Your task to perform on an android device: Open Maps and search for coffee Image 0: 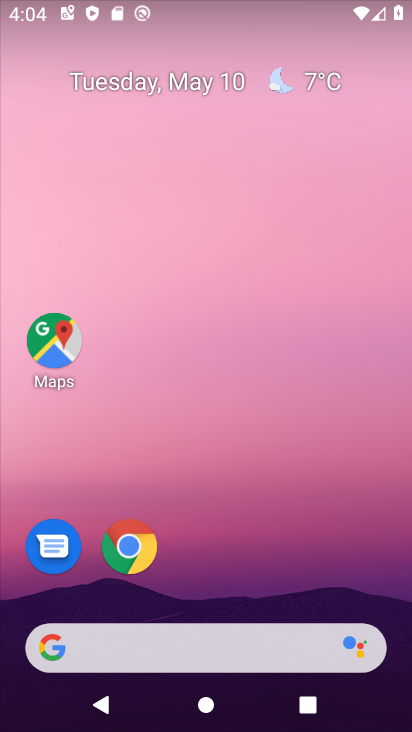
Step 0: click (155, 76)
Your task to perform on an android device: Open Maps and search for coffee Image 1: 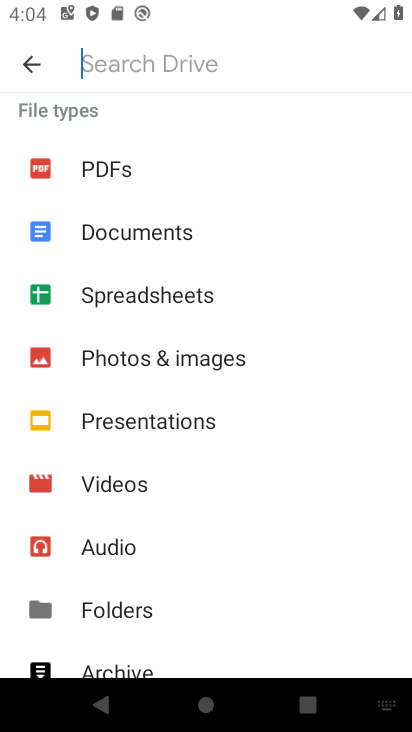
Step 1: press back button
Your task to perform on an android device: Open Maps and search for coffee Image 2: 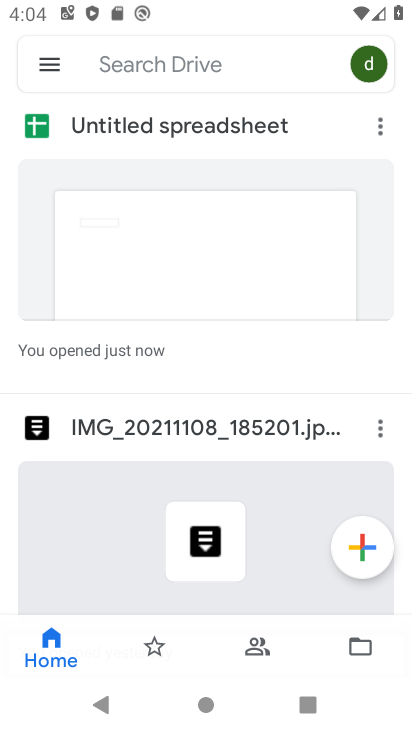
Step 2: press back button
Your task to perform on an android device: Open Maps and search for coffee Image 3: 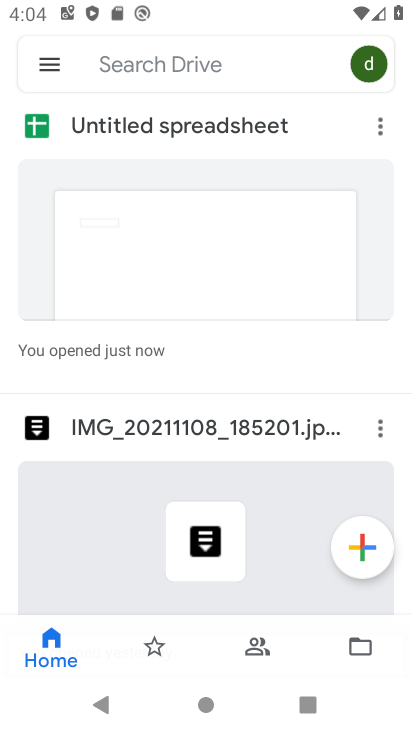
Step 3: press back button
Your task to perform on an android device: Open Maps and search for coffee Image 4: 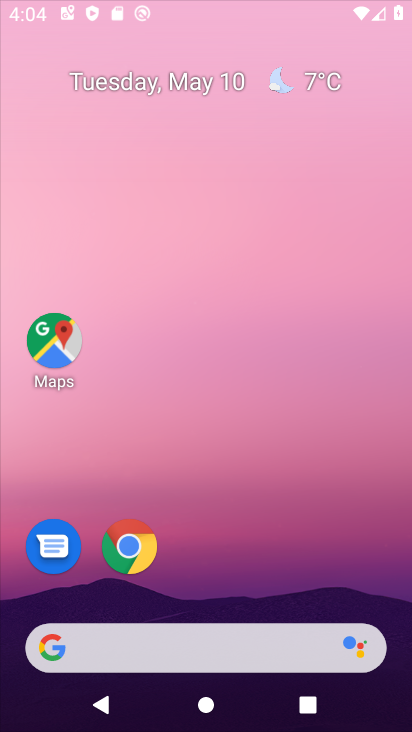
Step 4: press back button
Your task to perform on an android device: Open Maps and search for coffee Image 5: 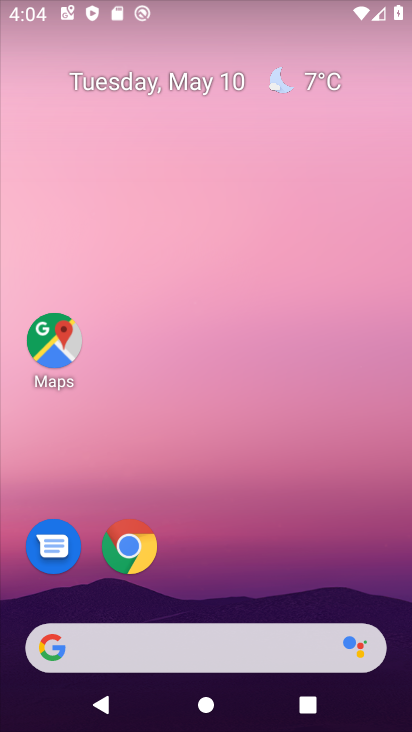
Step 5: press back button
Your task to perform on an android device: Open Maps and search for coffee Image 6: 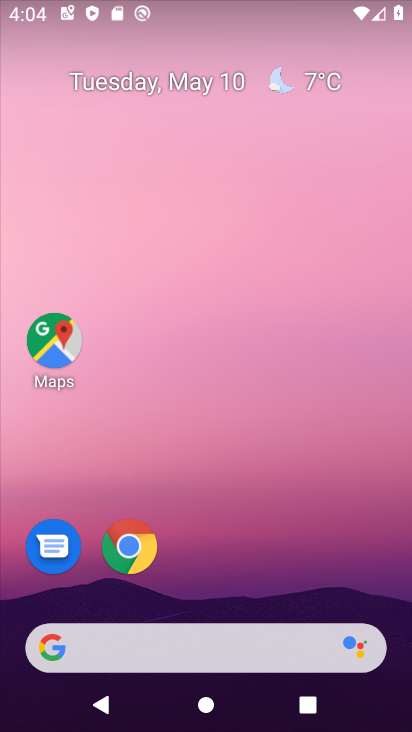
Step 6: click (38, 339)
Your task to perform on an android device: Open Maps and search for coffee Image 7: 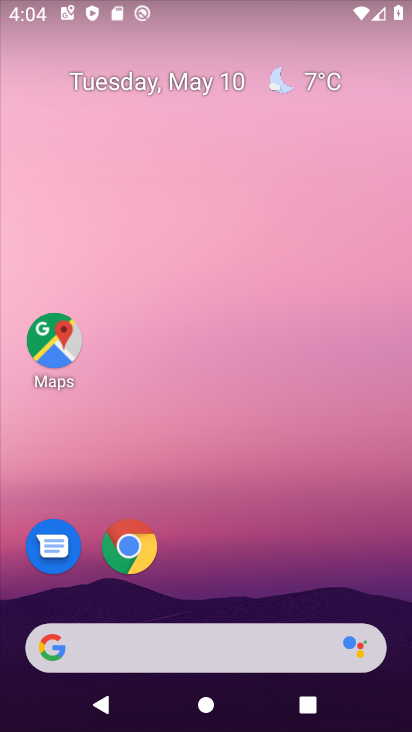
Step 7: click (37, 337)
Your task to perform on an android device: Open Maps and search for coffee Image 8: 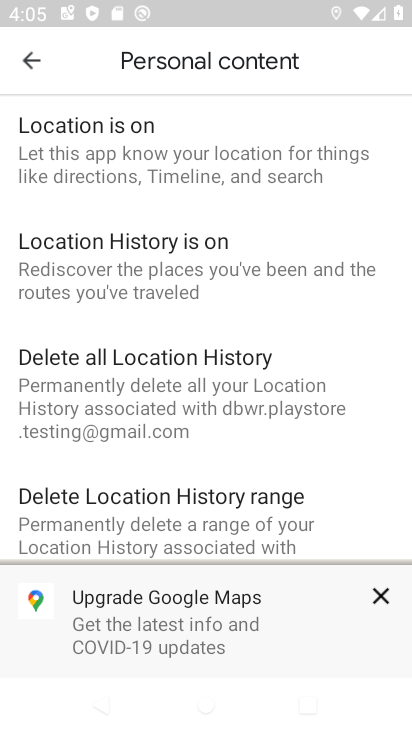
Step 8: click (30, 74)
Your task to perform on an android device: Open Maps and search for coffee Image 9: 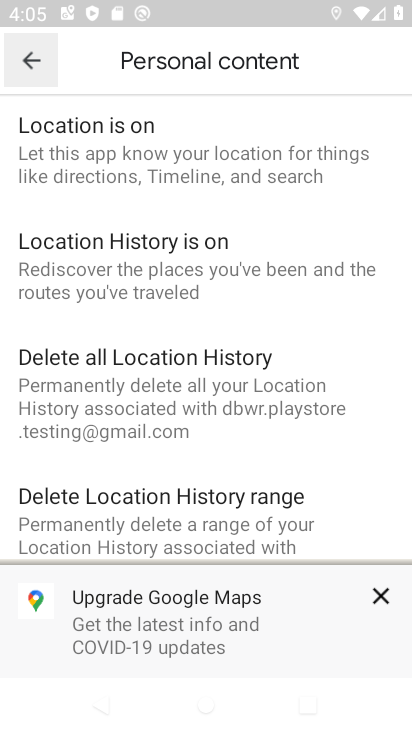
Step 9: click (28, 69)
Your task to perform on an android device: Open Maps and search for coffee Image 10: 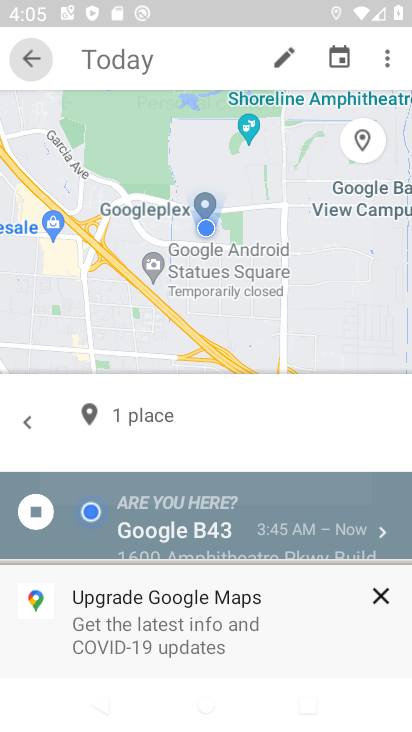
Step 10: click (28, 69)
Your task to perform on an android device: Open Maps and search for coffee Image 11: 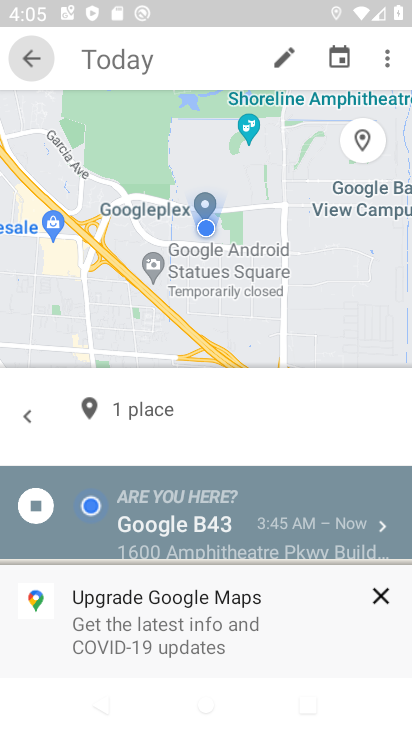
Step 11: click (28, 69)
Your task to perform on an android device: Open Maps and search for coffee Image 12: 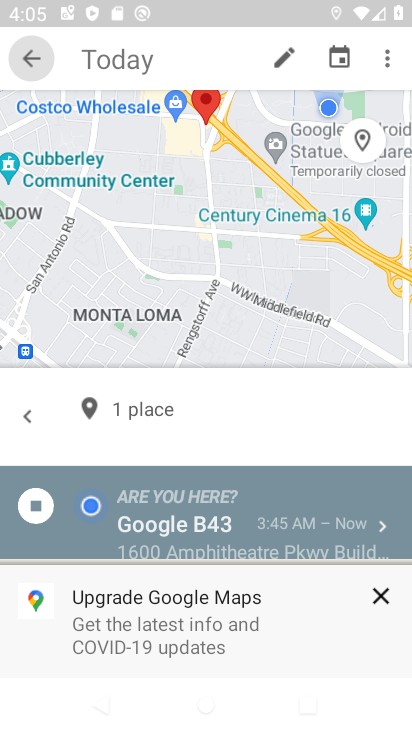
Step 12: click (86, 55)
Your task to perform on an android device: Open Maps and search for coffee Image 13: 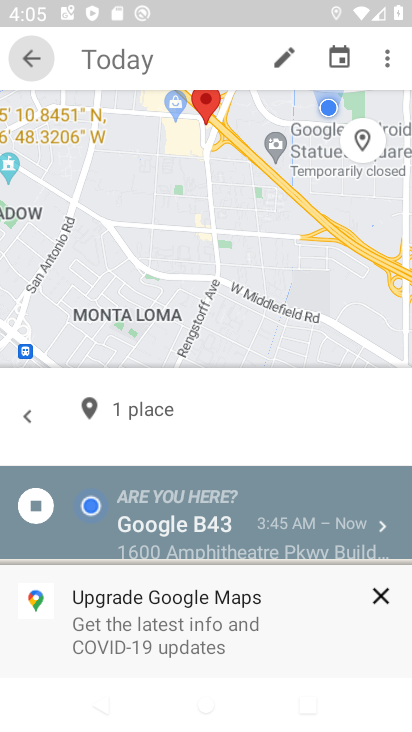
Step 13: click (85, 57)
Your task to perform on an android device: Open Maps and search for coffee Image 14: 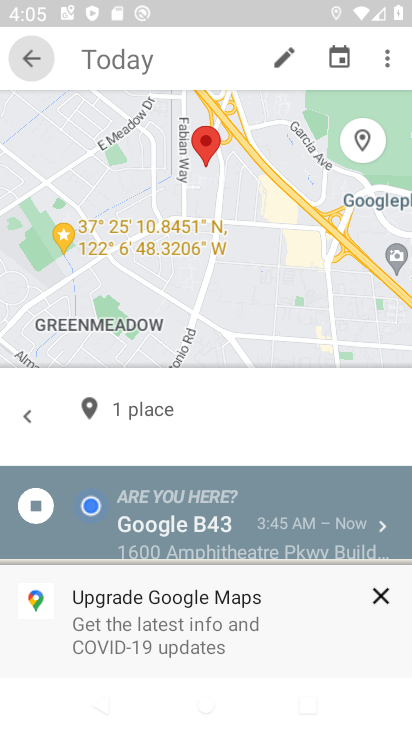
Step 14: click (74, 51)
Your task to perform on an android device: Open Maps and search for coffee Image 15: 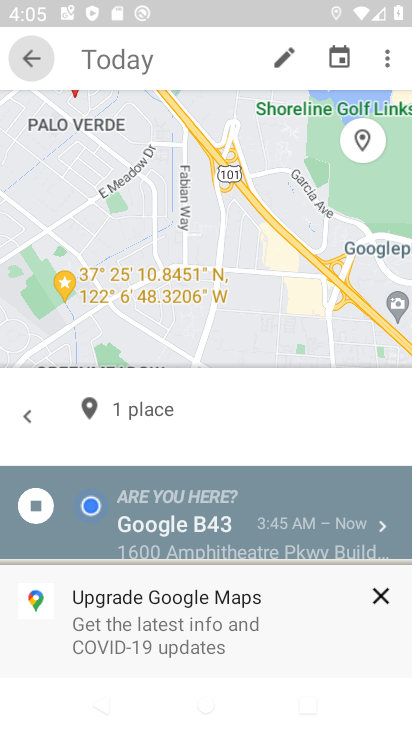
Step 15: click (81, 52)
Your task to perform on an android device: Open Maps and search for coffee Image 16: 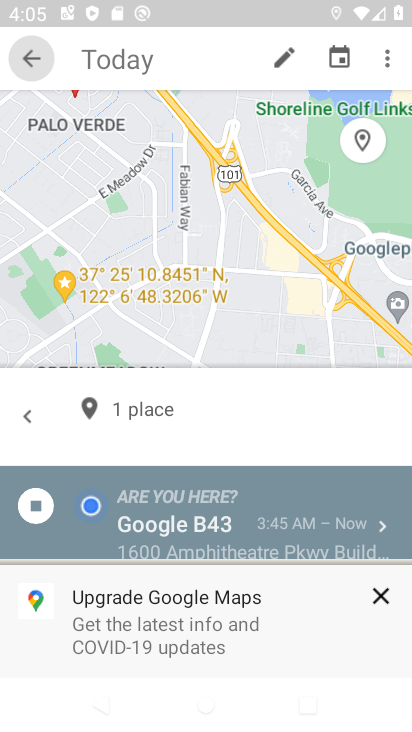
Step 16: click (80, 52)
Your task to perform on an android device: Open Maps and search for coffee Image 17: 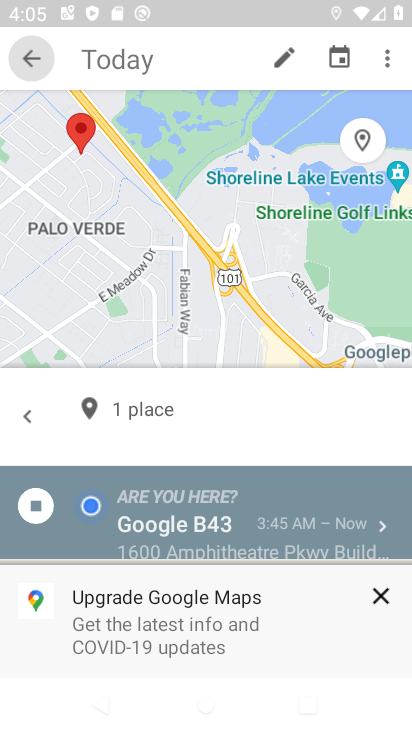
Step 17: click (79, 52)
Your task to perform on an android device: Open Maps and search for coffee Image 18: 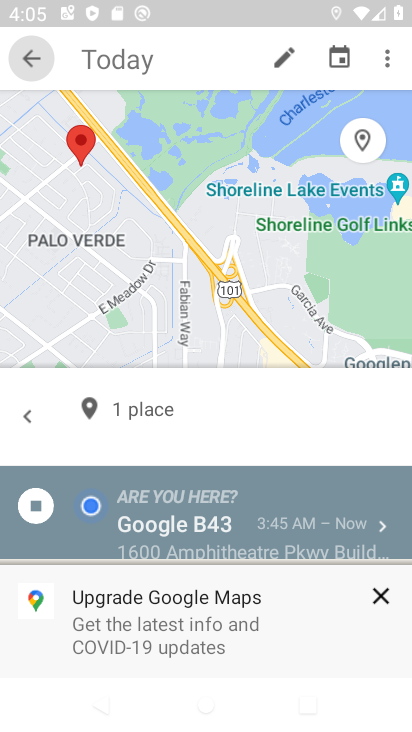
Step 18: click (76, 52)
Your task to perform on an android device: Open Maps and search for coffee Image 19: 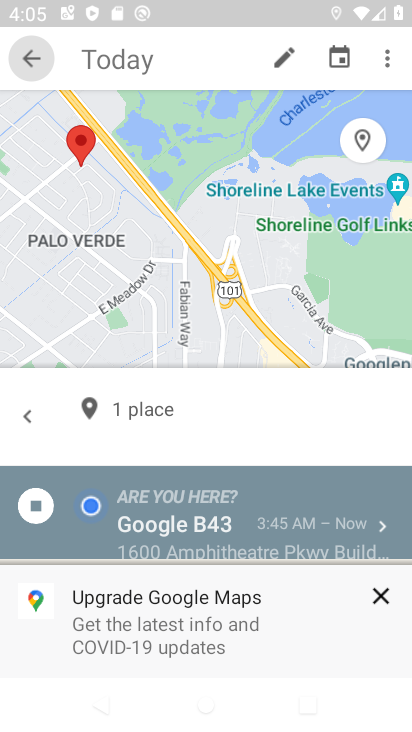
Step 19: click (75, 62)
Your task to perform on an android device: Open Maps and search for coffee Image 20: 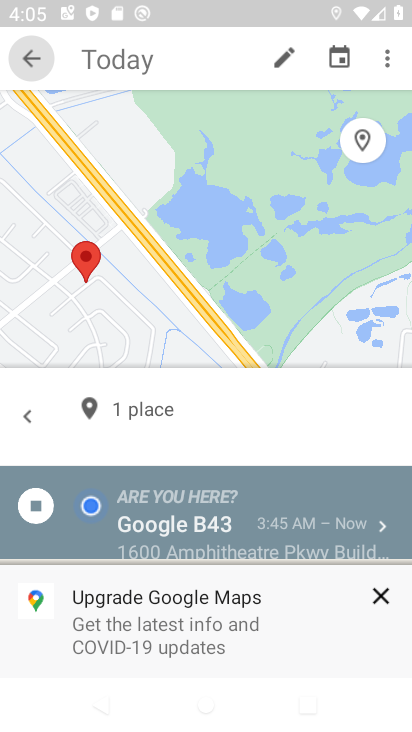
Step 20: click (81, 49)
Your task to perform on an android device: Open Maps and search for coffee Image 21: 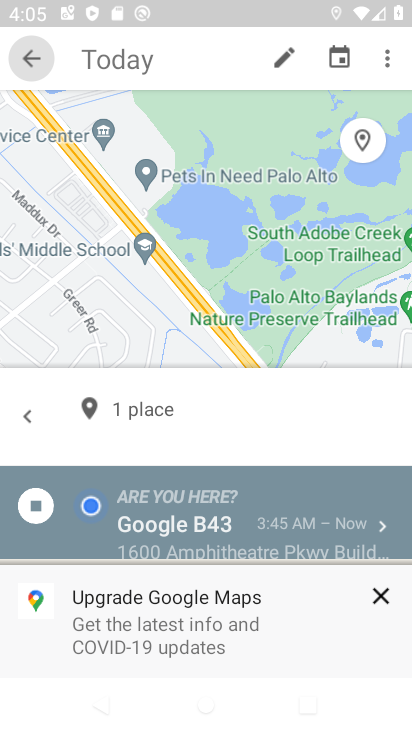
Step 21: click (79, 50)
Your task to perform on an android device: Open Maps and search for coffee Image 22: 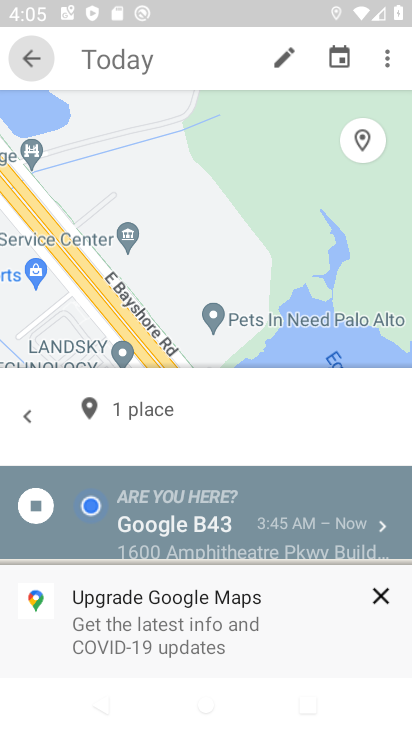
Step 22: click (29, 55)
Your task to perform on an android device: Open Maps and search for coffee Image 23: 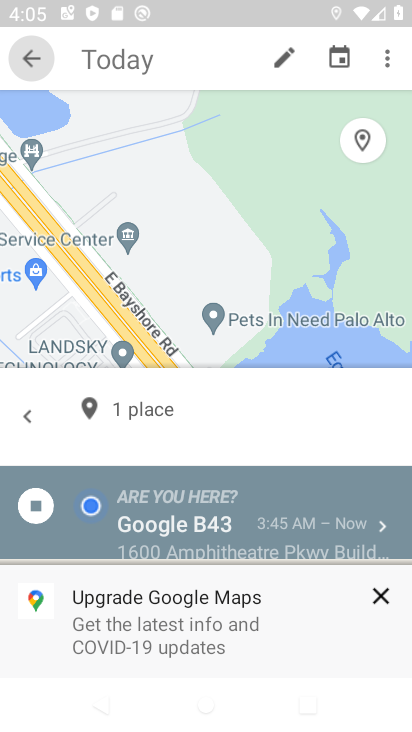
Step 23: click (159, 47)
Your task to perform on an android device: Open Maps and search for coffee Image 24: 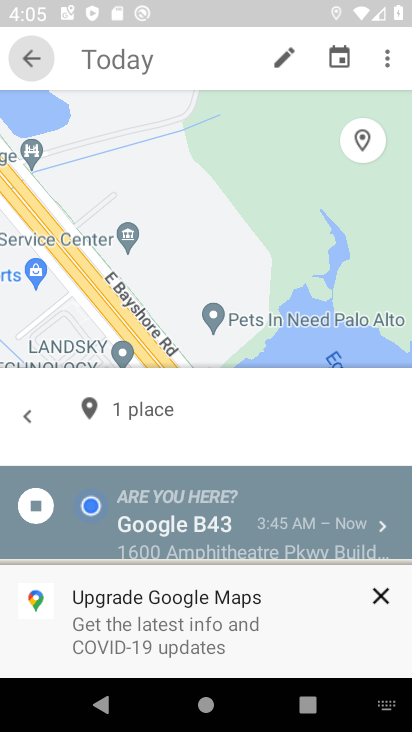
Step 24: click (156, 61)
Your task to perform on an android device: Open Maps and search for coffee Image 25: 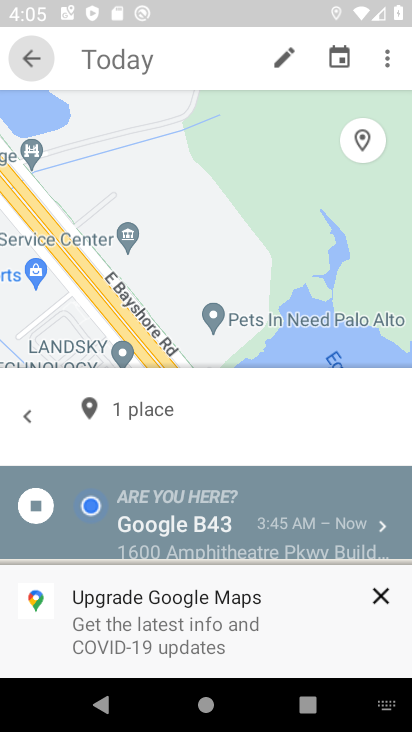
Step 25: click (152, 65)
Your task to perform on an android device: Open Maps and search for coffee Image 26: 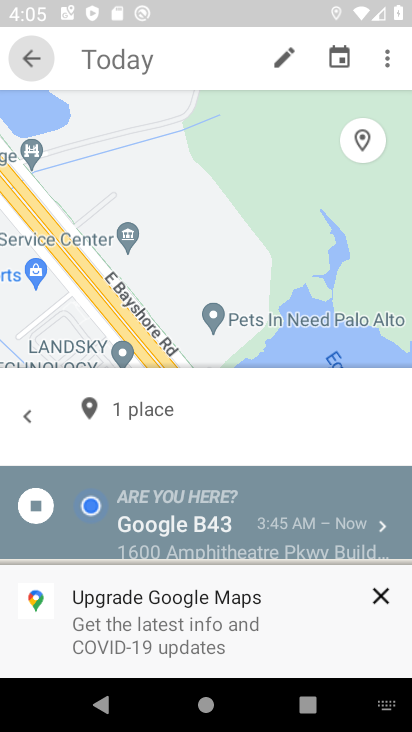
Step 26: click (153, 64)
Your task to perform on an android device: Open Maps and search for coffee Image 27: 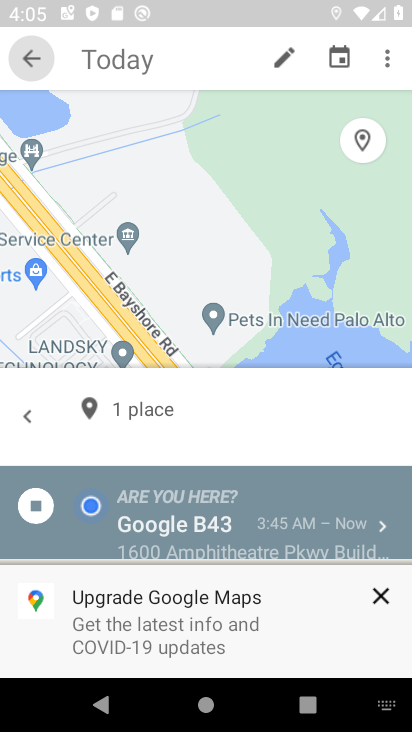
Step 27: click (151, 69)
Your task to perform on an android device: Open Maps and search for coffee Image 28: 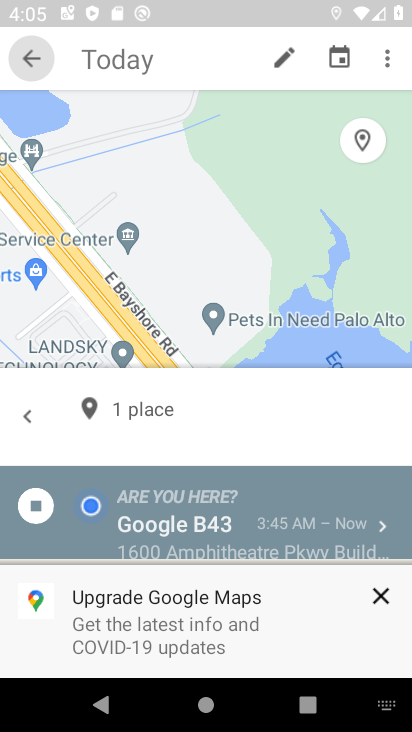
Step 28: click (150, 71)
Your task to perform on an android device: Open Maps and search for coffee Image 29: 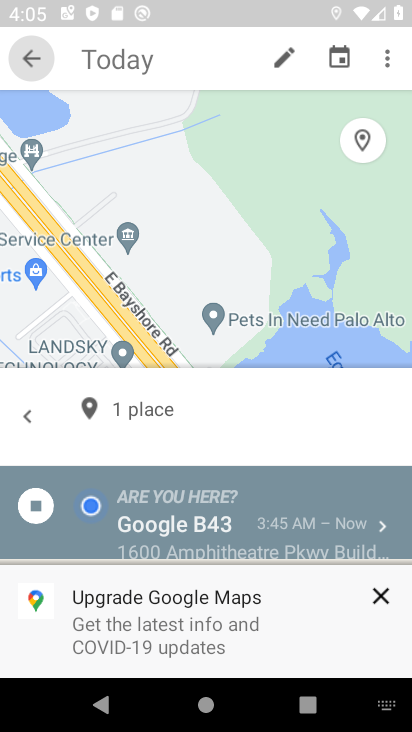
Step 29: click (143, 72)
Your task to perform on an android device: Open Maps and search for coffee Image 30: 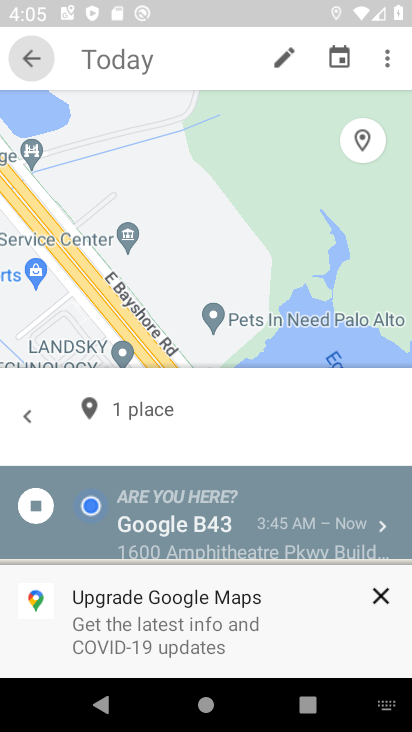
Step 30: click (140, 74)
Your task to perform on an android device: Open Maps and search for coffee Image 31: 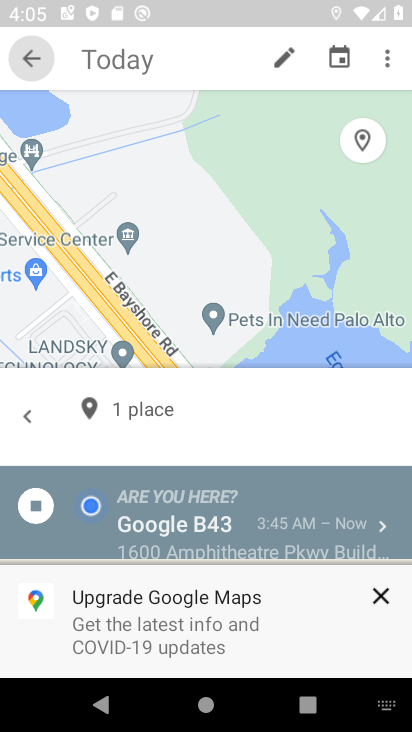
Step 31: click (138, 75)
Your task to perform on an android device: Open Maps and search for coffee Image 32: 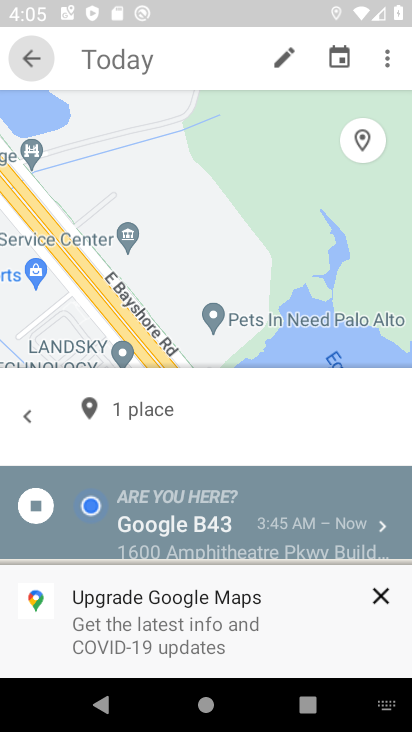
Step 32: click (136, 78)
Your task to perform on an android device: Open Maps and search for coffee Image 33: 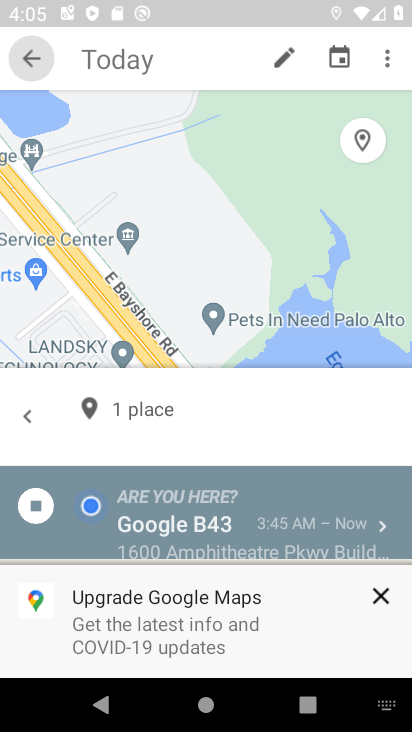
Step 33: click (135, 78)
Your task to perform on an android device: Open Maps and search for coffee Image 34: 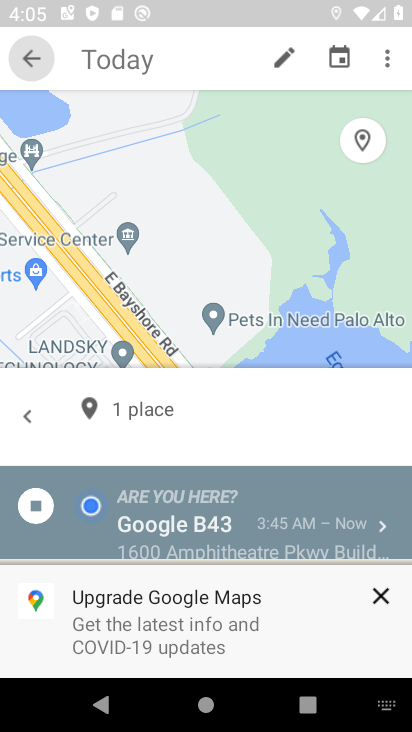
Step 34: click (100, 54)
Your task to perform on an android device: Open Maps and search for coffee Image 35: 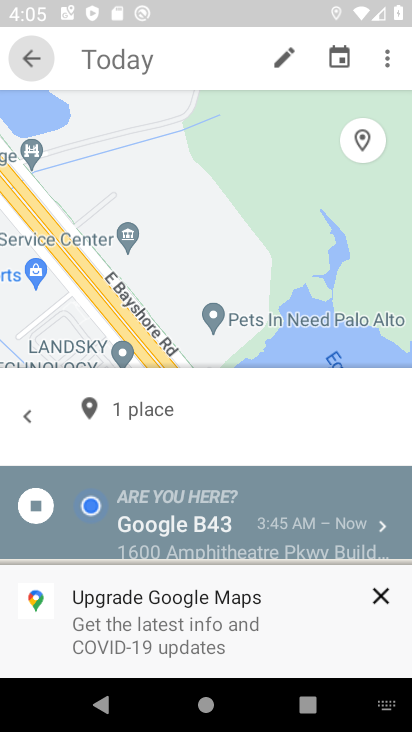
Step 35: click (77, 57)
Your task to perform on an android device: Open Maps and search for coffee Image 36: 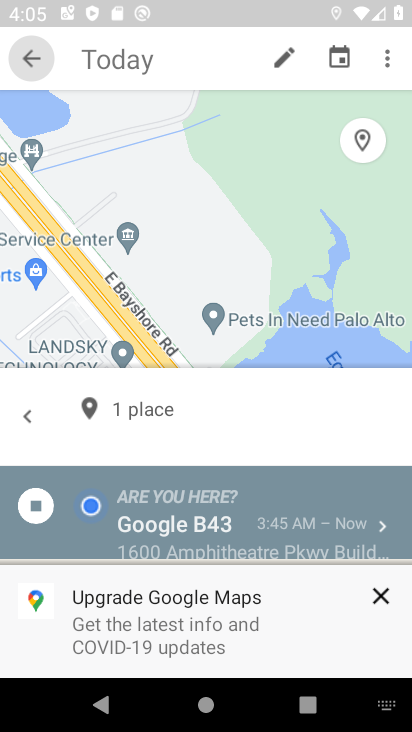
Step 36: type "coffee"
Your task to perform on an android device: Open Maps and search for coffee Image 37: 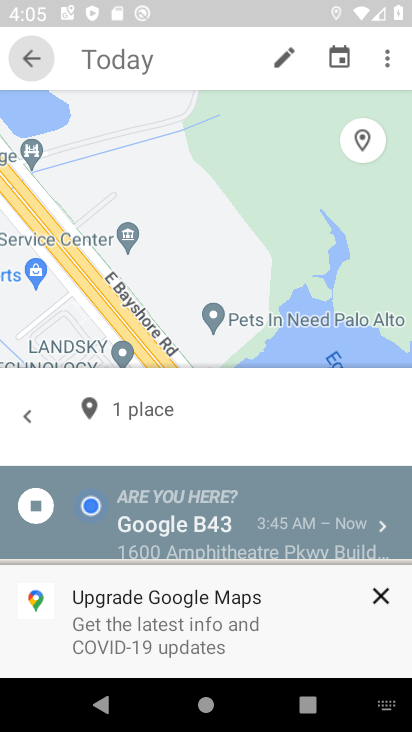
Step 37: click (99, 59)
Your task to perform on an android device: Open Maps and search for coffee Image 38: 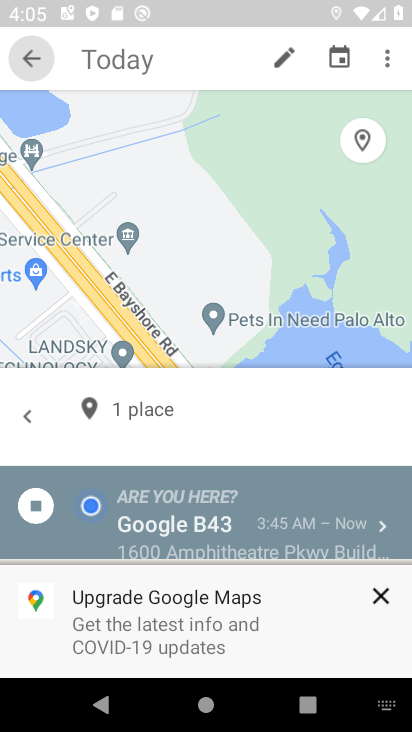
Step 38: click (99, 59)
Your task to perform on an android device: Open Maps and search for coffee Image 39: 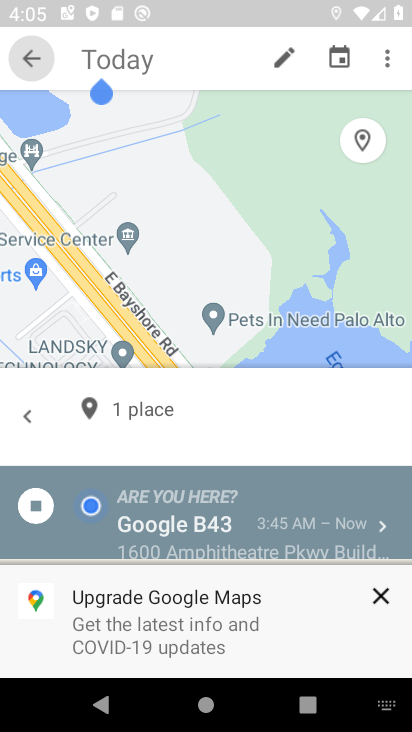
Step 39: click (99, 59)
Your task to perform on an android device: Open Maps and search for coffee Image 40: 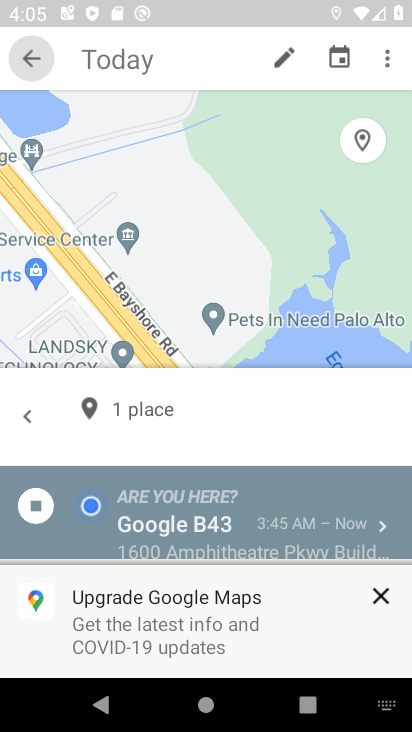
Step 40: click (99, 59)
Your task to perform on an android device: Open Maps and search for coffee Image 41: 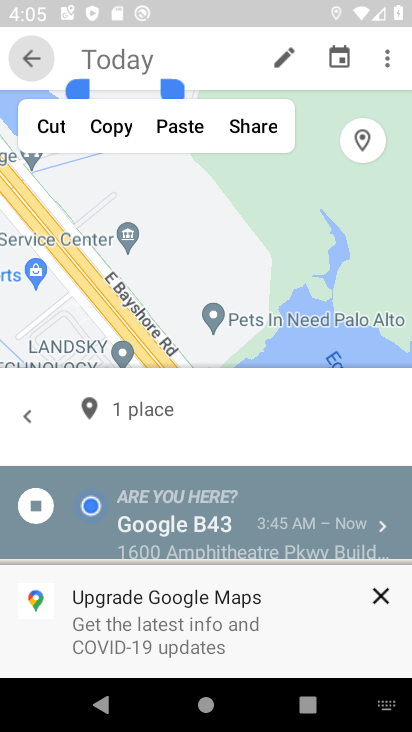
Step 41: click (90, 70)
Your task to perform on an android device: Open Maps and search for coffee Image 42: 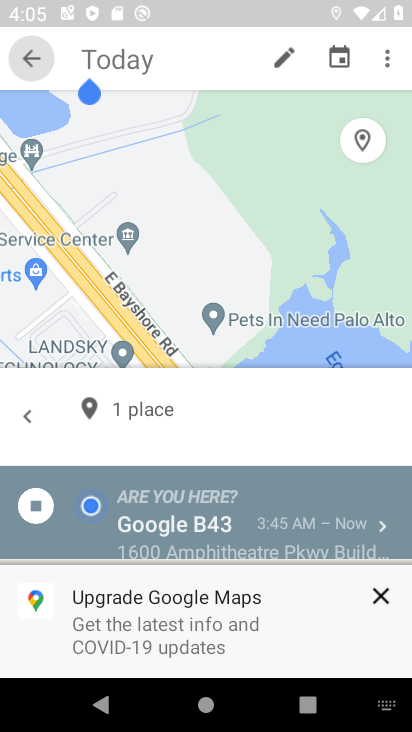
Step 42: click (27, 54)
Your task to perform on an android device: Open Maps and search for coffee Image 43: 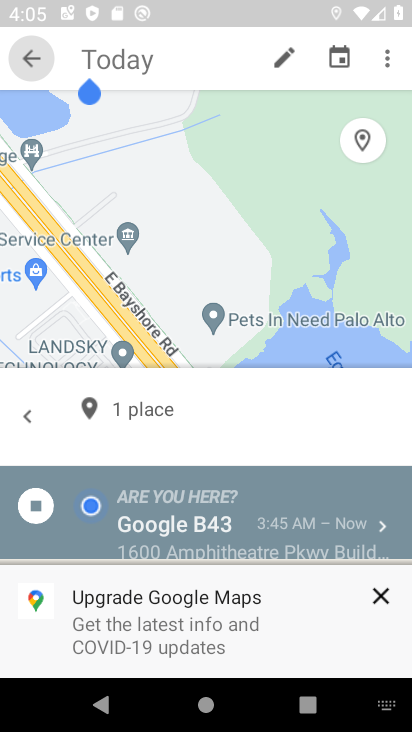
Step 43: click (27, 54)
Your task to perform on an android device: Open Maps and search for coffee Image 44: 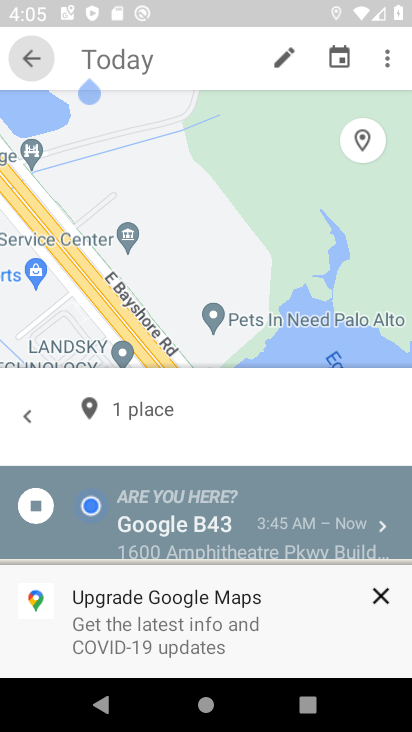
Step 44: click (27, 54)
Your task to perform on an android device: Open Maps and search for coffee Image 45: 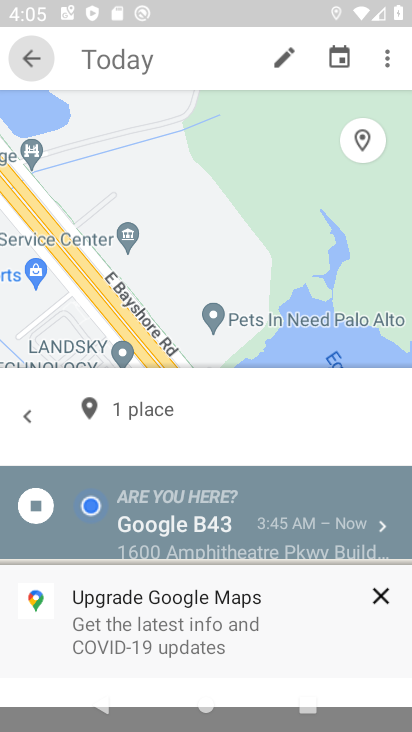
Step 45: click (27, 54)
Your task to perform on an android device: Open Maps and search for coffee Image 46: 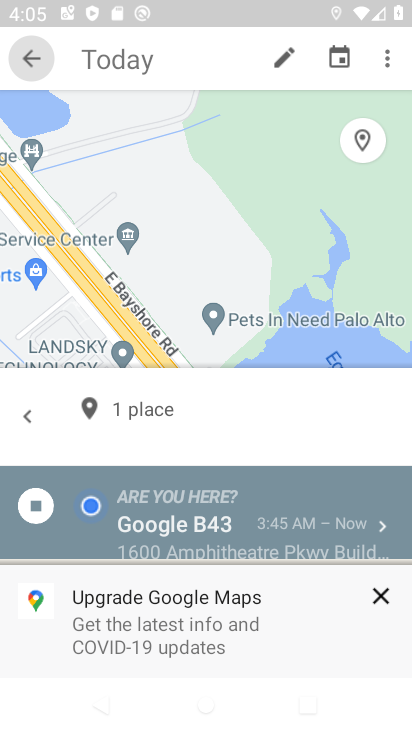
Step 46: click (27, 54)
Your task to perform on an android device: Open Maps and search for coffee Image 47: 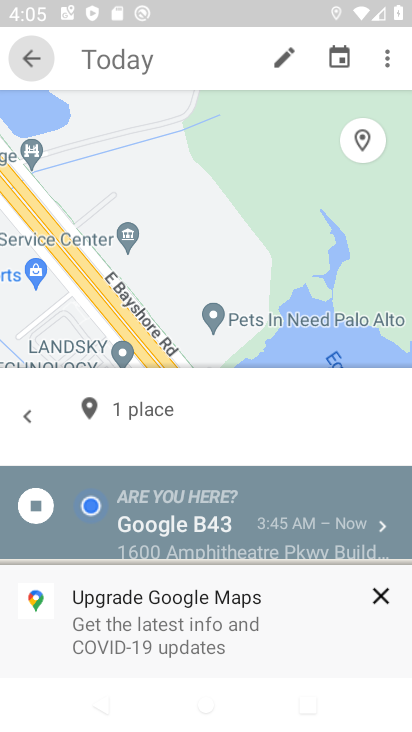
Step 47: click (27, 54)
Your task to perform on an android device: Open Maps and search for coffee Image 48: 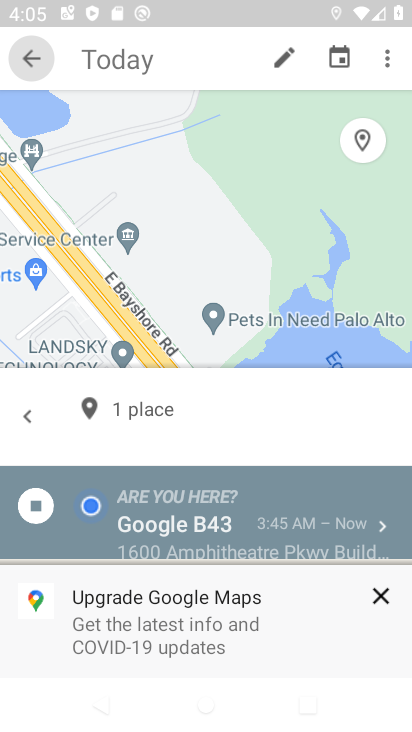
Step 48: click (27, 54)
Your task to perform on an android device: Open Maps and search for coffee Image 49: 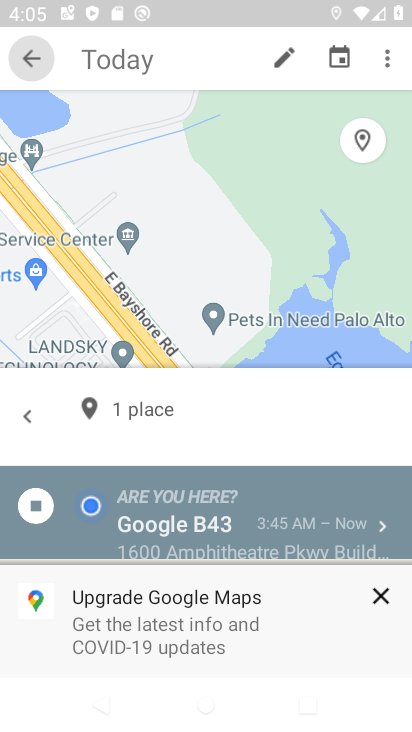
Step 49: click (27, 54)
Your task to perform on an android device: Open Maps and search for coffee Image 50: 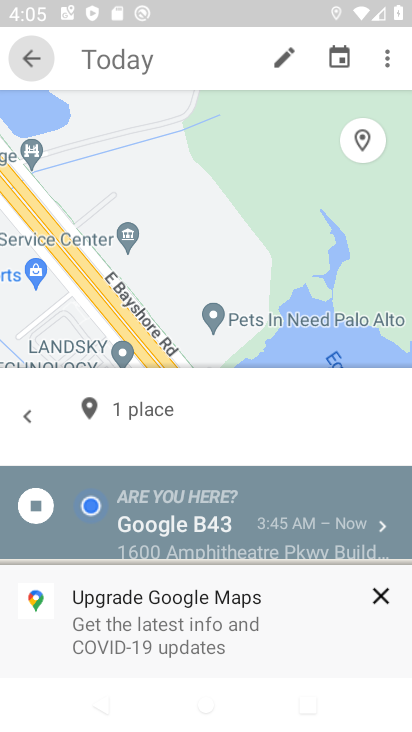
Step 50: click (27, 54)
Your task to perform on an android device: Open Maps and search for coffee Image 51: 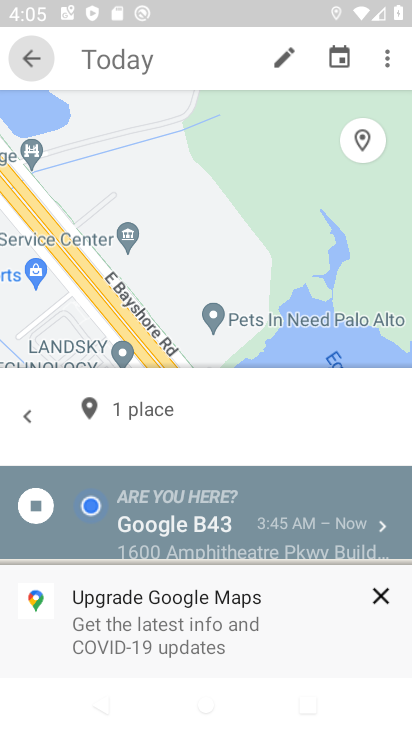
Step 51: click (27, 54)
Your task to perform on an android device: Open Maps and search for coffee Image 52: 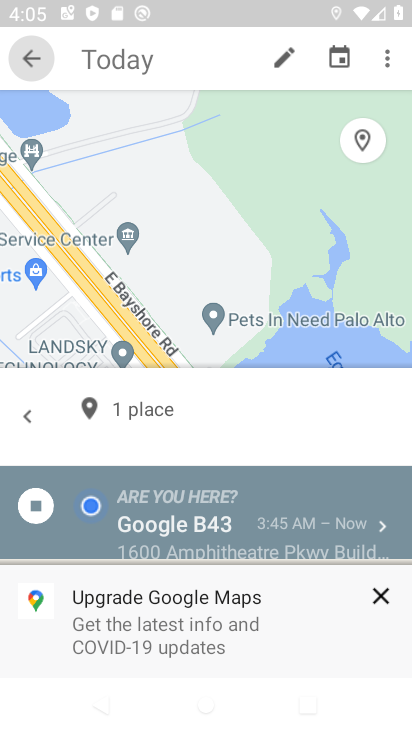
Step 52: click (27, 54)
Your task to perform on an android device: Open Maps and search for coffee Image 53: 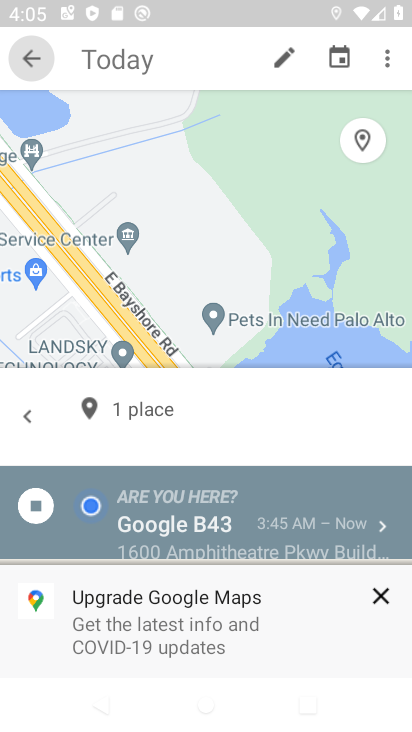
Step 53: click (27, 54)
Your task to perform on an android device: Open Maps and search for coffee Image 54: 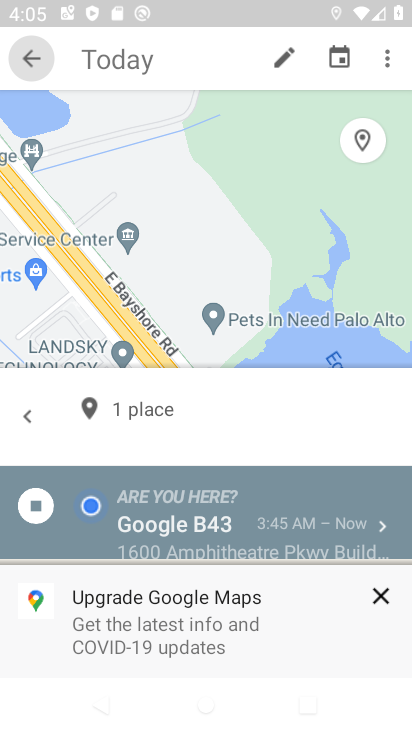
Step 54: click (156, 54)
Your task to perform on an android device: Open Maps and search for coffee Image 55: 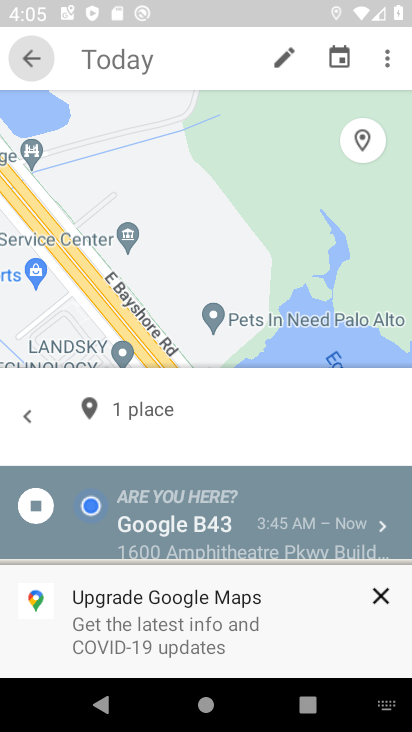
Step 55: click (75, 56)
Your task to perform on an android device: Open Maps and search for coffee Image 56: 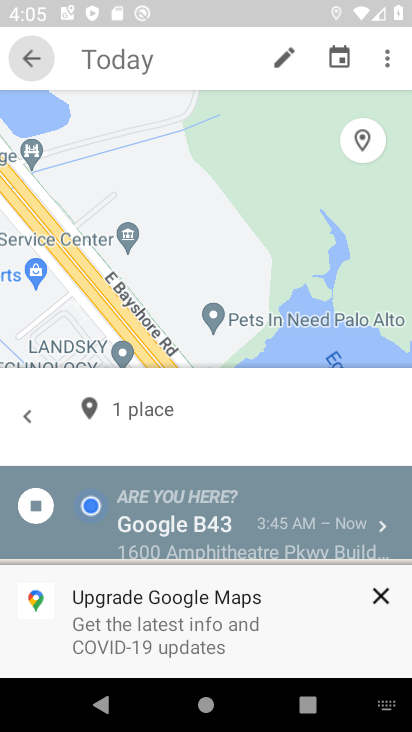
Step 56: click (75, 56)
Your task to perform on an android device: Open Maps and search for coffee Image 57: 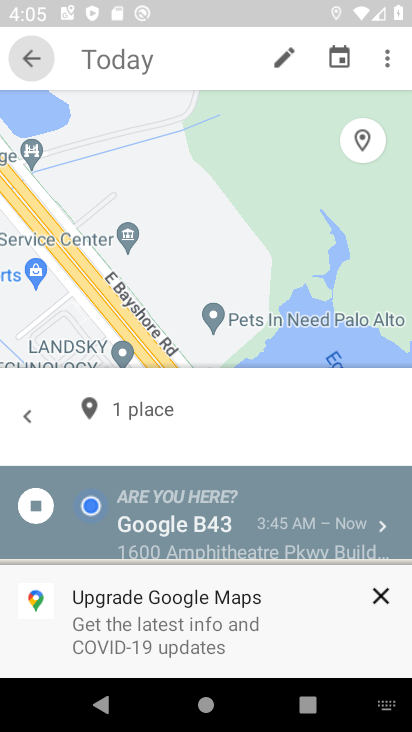
Step 57: click (75, 56)
Your task to perform on an android device: Open Maps and search for coffee Image 58: 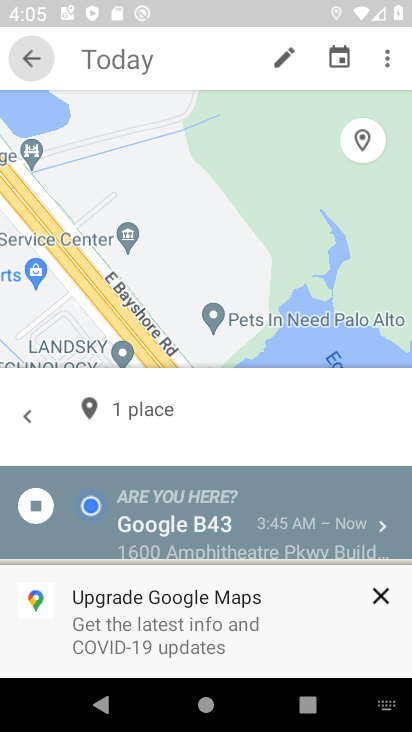
Step 58: click (75, 56)
Your task to perform on an android device: Open Maps and search for coffee Image 59: 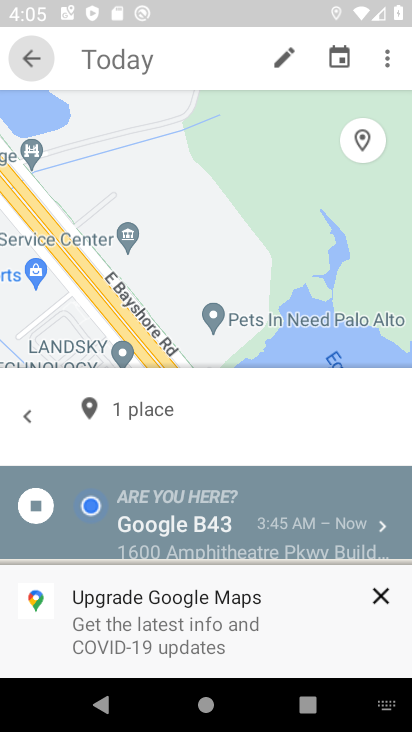
Step 59: click (75, 56)
Your task to perform on an android device: Open Maps and search for coffee Image 60: 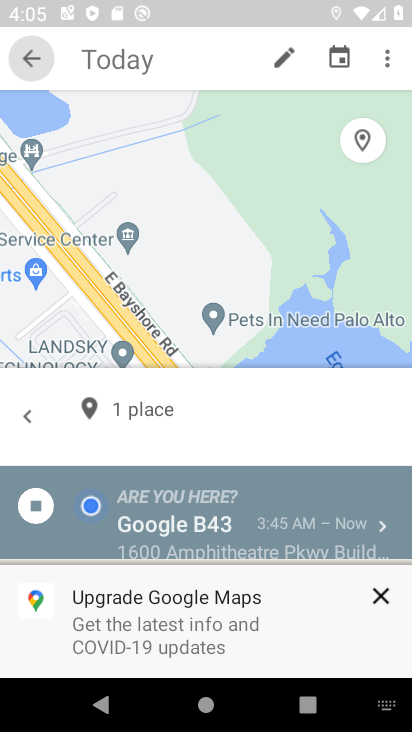
Step 60: click (75, 56)
Your task to perform on an android device: Open Maps and search for coffee Image 61: 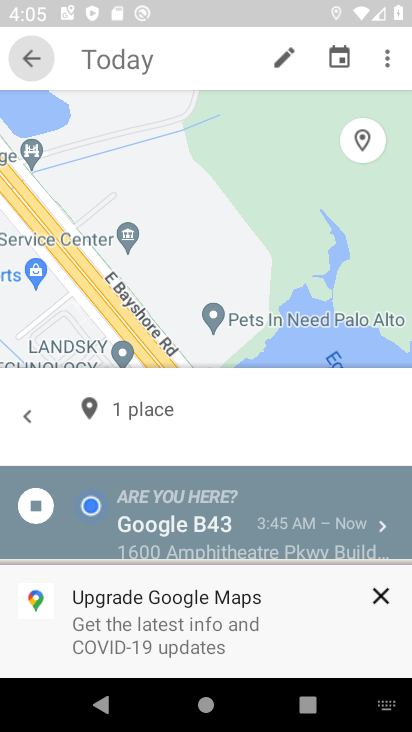
Step 61: click (75, 56)
Your task to perform on an android device: Open Maps and search for coffee Image 62: 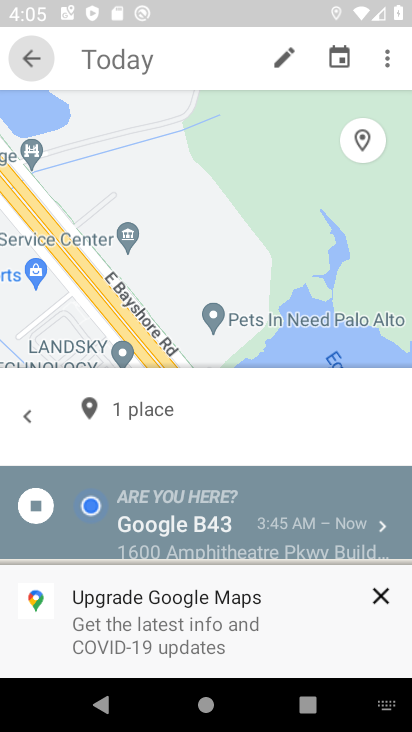
Step 62: click (75, 56)
Your task to perform on an android device: Open Maps and search for coffee Image 63: 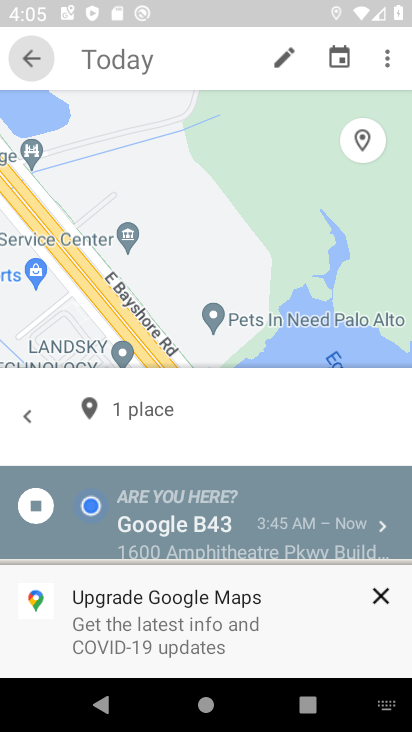
Step 63: click (75, 56)
Your task to perform on an android device: Open Maps and search for coffee Image 64: 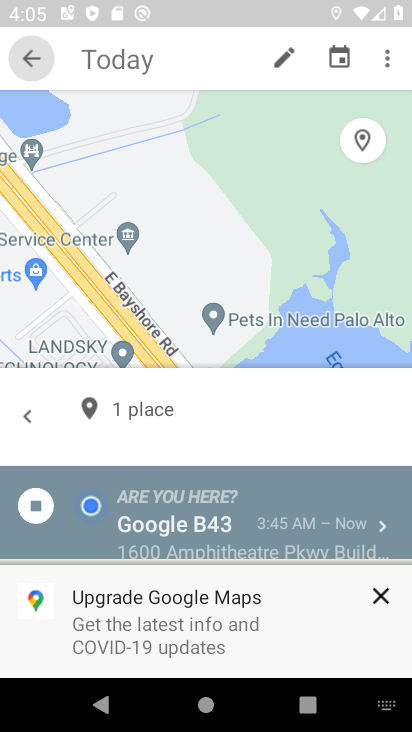
Step 64: click (75, 56)
Your task to perform on an android device: Open Maps and search for coffee Image 65: 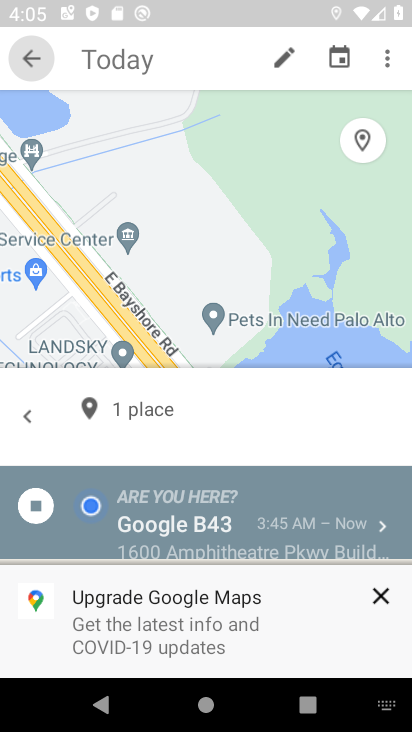
Step 65: click (75, 56)
Your task to perform on an android device: Open Maps and search for coffee Image 66: 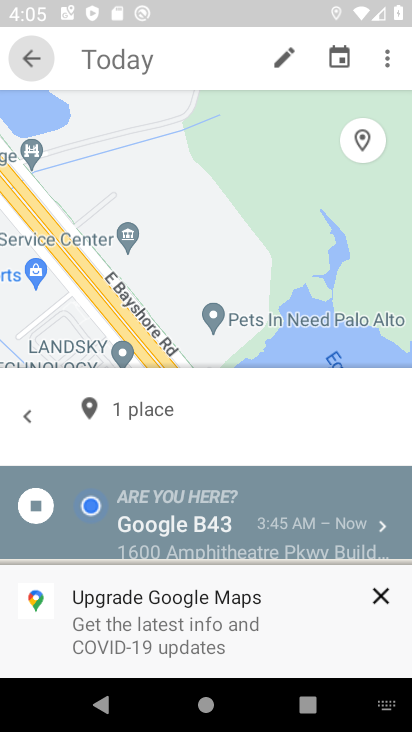
Step 66: click (75, 56)
Your task to perform on an android device: Open Maps and search for coffee Image 67: 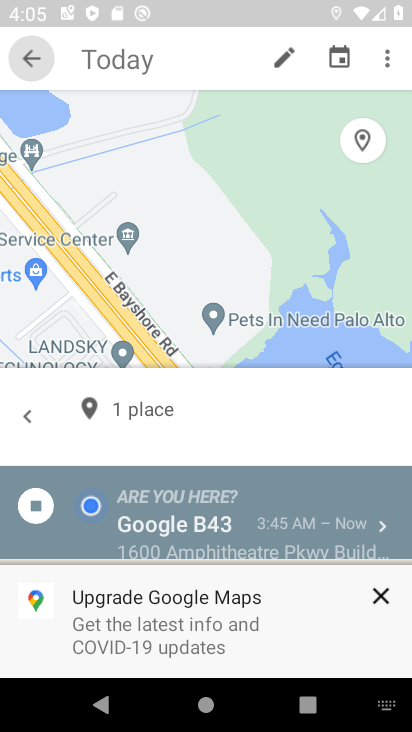
Step 67: click (75, 56)
Your task to perform on an android device: Open Maps and search for coffee Image 68: 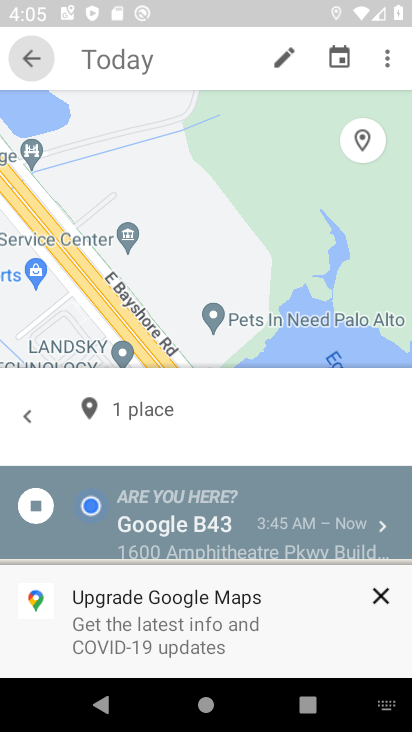
Step 68: click (75, 56)
Your task to perform on an android device: Open Maps and search for coffee Image 69: 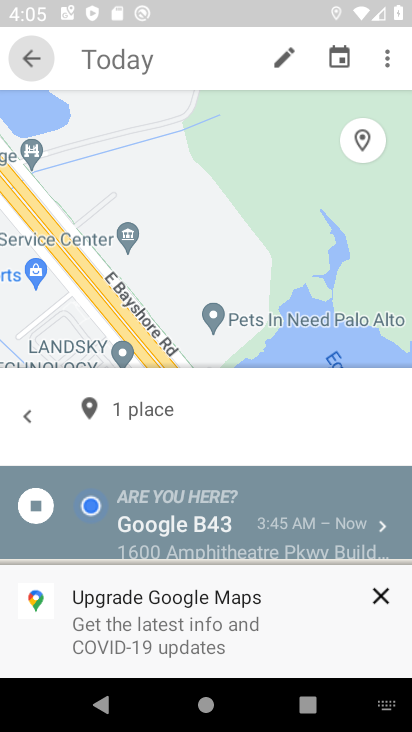
Step 69: click (75, 56)
Your task to perform on an android device: Open Maps and search for coffee Image 70: 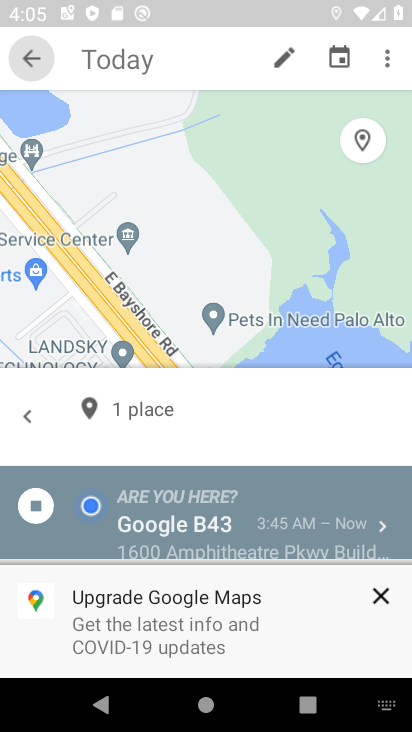
Step 70: task complete